Your task to perform on an android device: What's the weather going to be this weekend? Image 0: 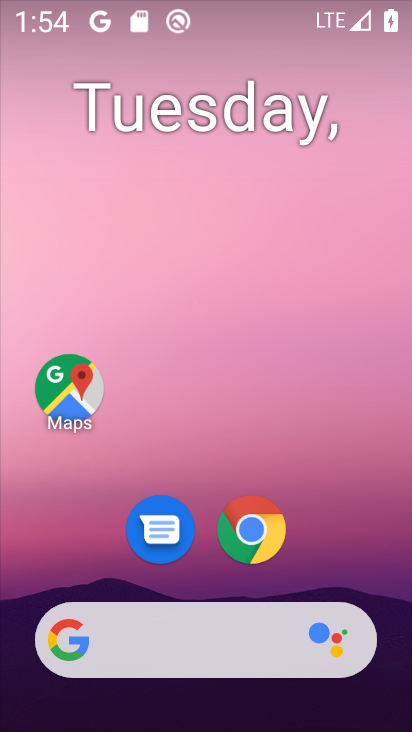
Step 0: click (242, 531)
Your task to perform on an android device: What's the weather going to be this weekend? Image 1: 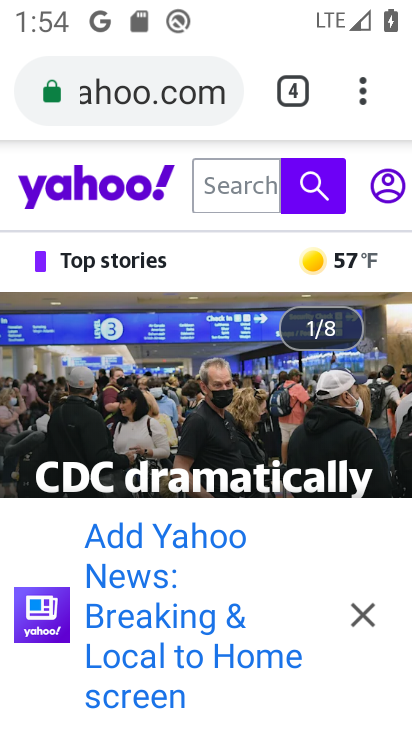
Step 1: click (195, 93)
Your task to perform on an android device: What's the weather going to be this weekend? Image 2: 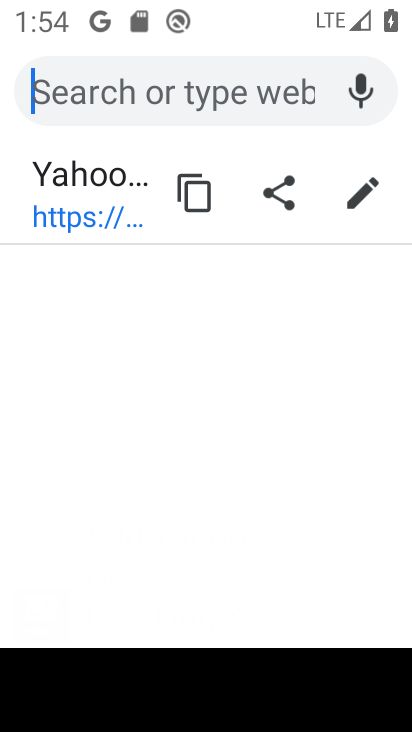
Step 2: press back button
Your task to perform on an android device: What's the weather going to be this weekend? Image 3: 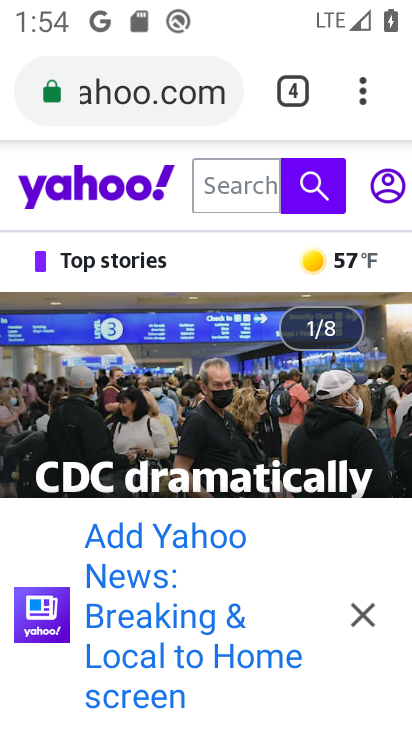
Step 3: press home button
Your task to perform on an android device: What's the weather going to be this weekend? Image 4: 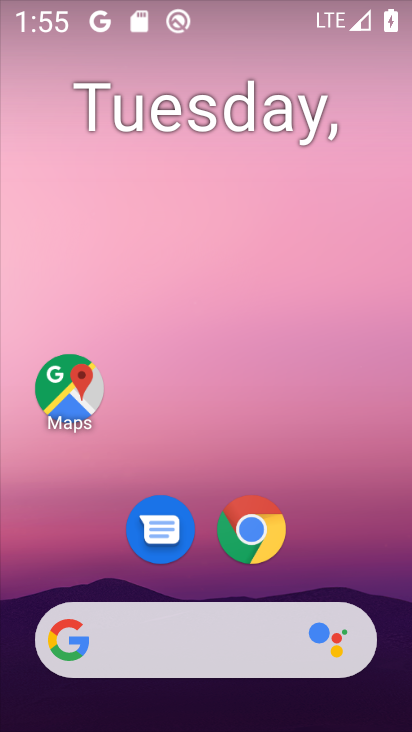
Step 4: drag from (7, 253) to (411, 261)
Your task to perform on an android device: What's the weather going to be this weekend? Image 5: 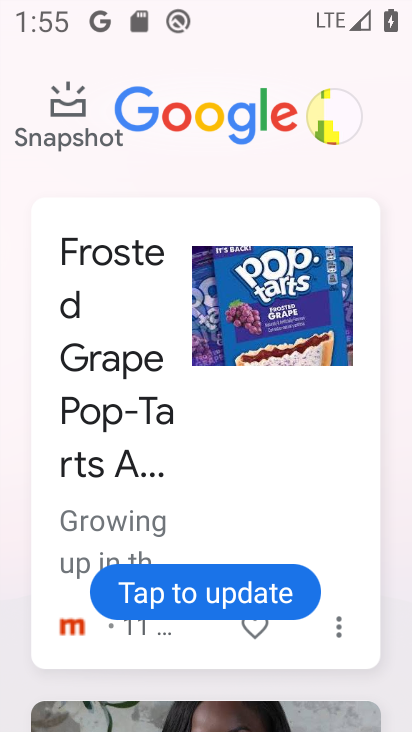
Step 5: drag from (350, 337) to (342, 498)
Your task to perform on an android device: What's the weather going to be this weekend? Image 6: 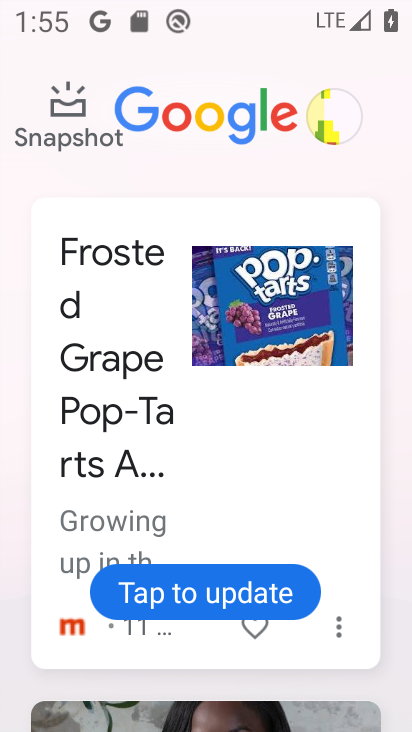
Step 6: click (210, 390)
Your task to perform on an android device: What's the weather going to be this weekend? Image 7: 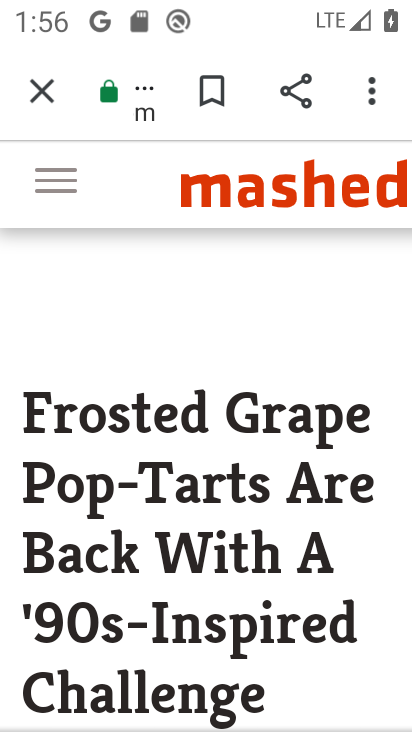
Step 7: task complete